Your task to perform on an android device: Open Chrome and go to settings Image 0: 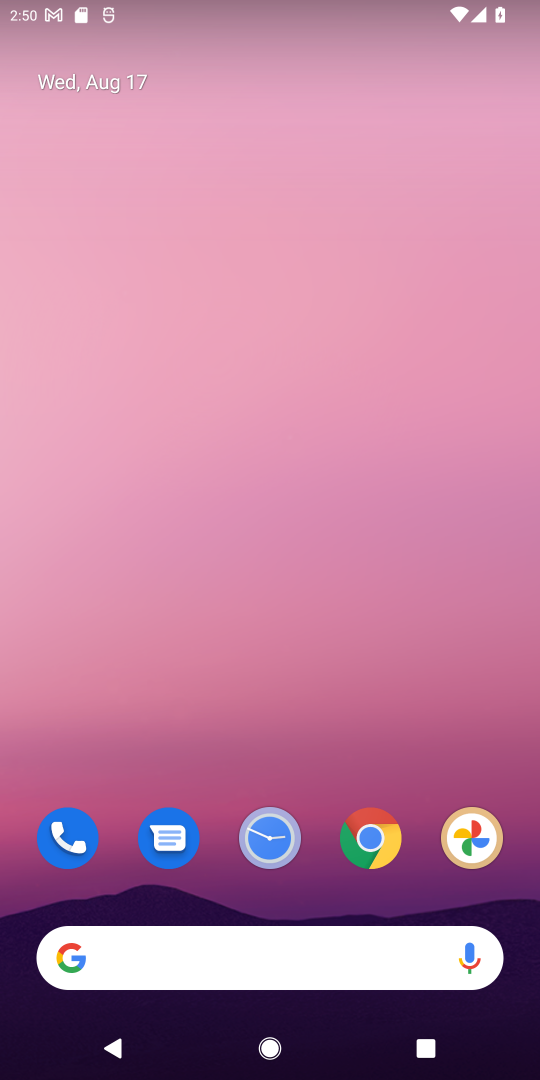
Step 0: click (390, 852)
Your task to perform on an android device: Open Chrome and go to settings Image 1: 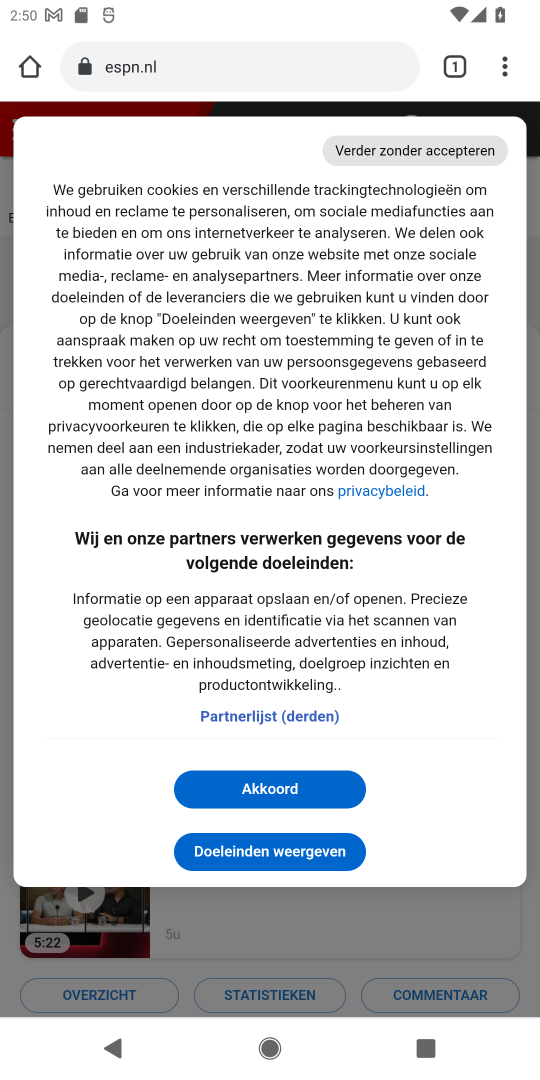
Step 1: click (501, 61)
Your task to perform on an android device: Open Chrome and go to settings Image 2: 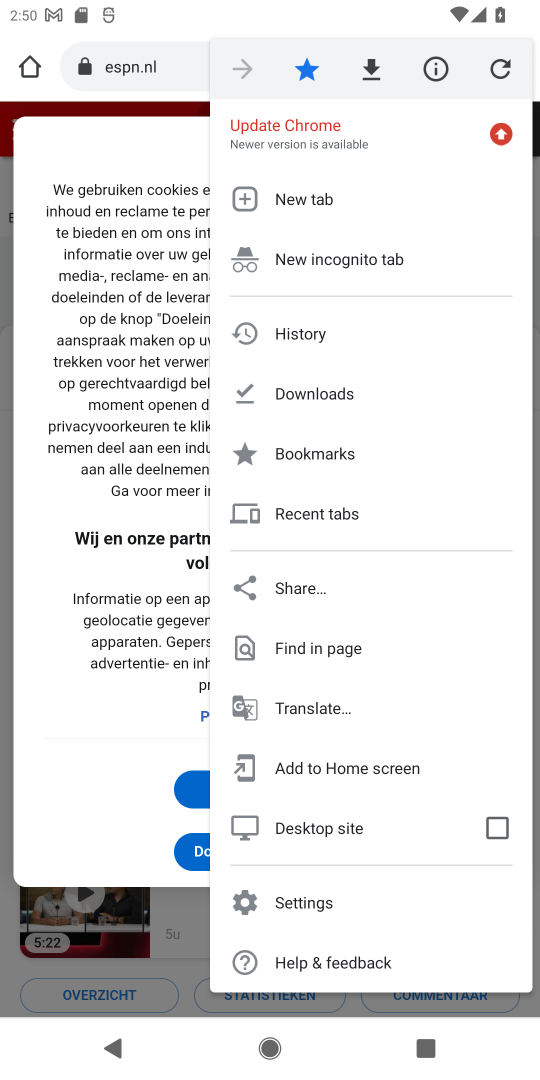
Step 2: click (318, 898)
Your task to perform on an android device: Open Chrome and go to settings Image 3: 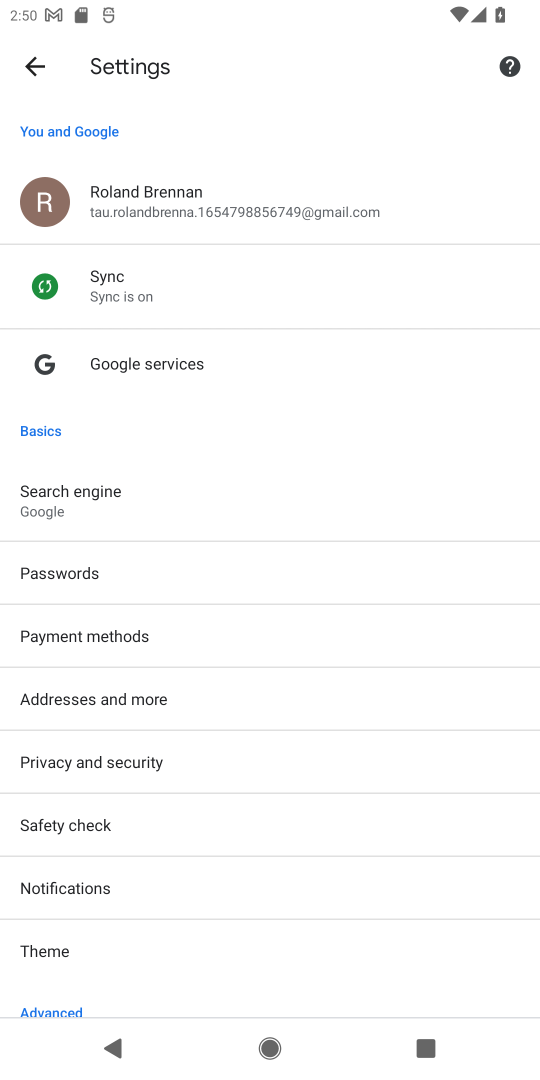
Step 3: task complete